Your task to perform on an android device: change the upload size in google photos Image 0: 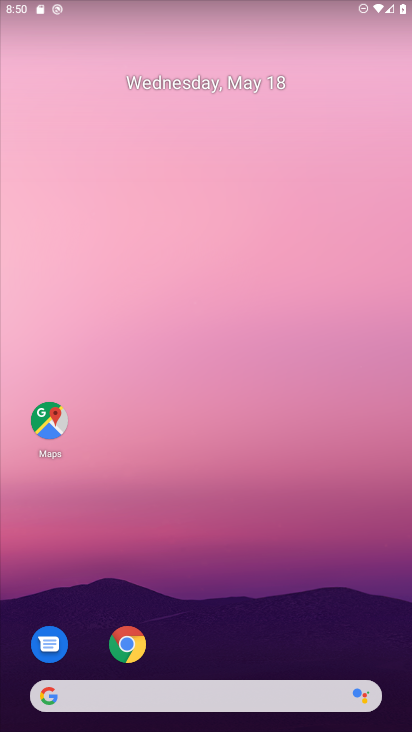
Step 0: drag from (187, 613) to (254, 25)
Your task to perform on an android device: change the upload size in google photos Image 1: 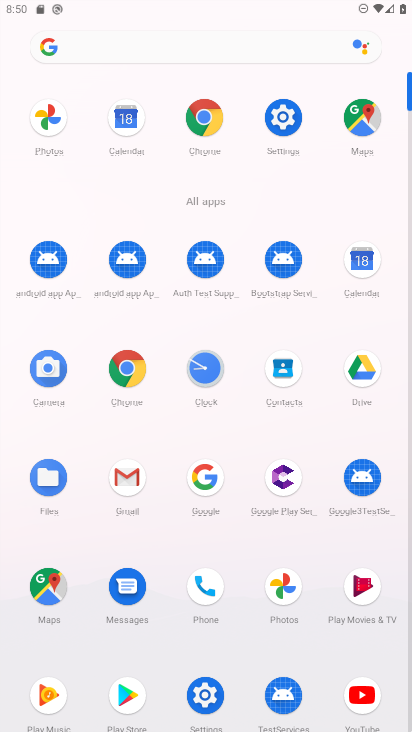
Step 1: click (49, 126)
Your task to perform on an android device: change the upload size in google photos Image 2: 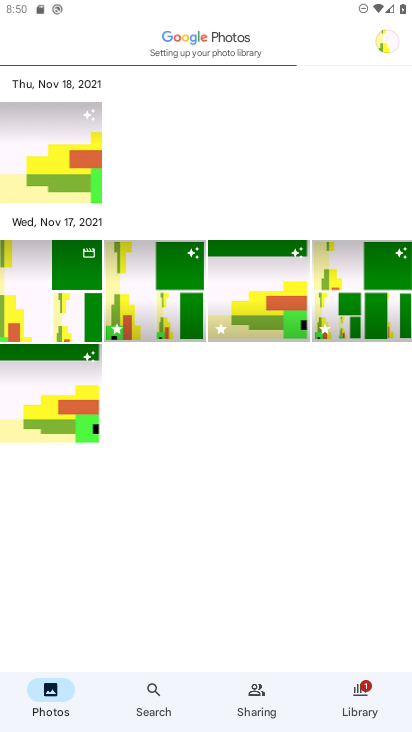
Step 2: click (387, 34)
Your task to perform on an android device: change the upload size in google photos Image 3: 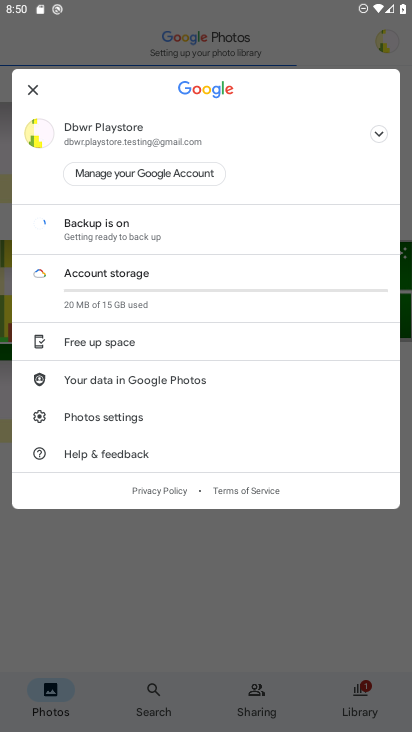
Step 3: click (82, 418)
Your task to perform on an android device: change the upload size in google photos Image 4: 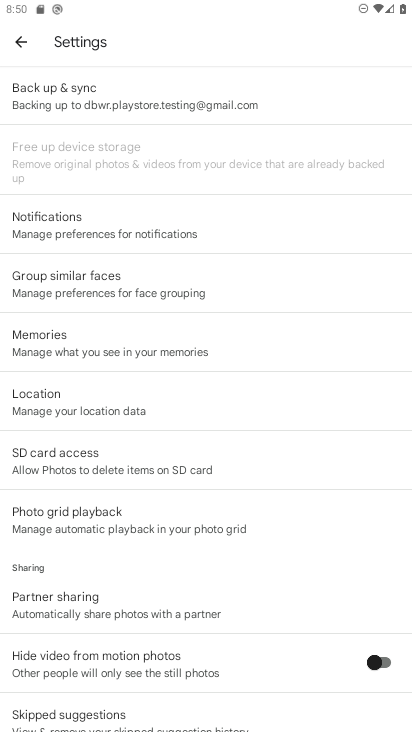
Step 4: click (110, 95)
Your task to perform on an android device: change the upload size in google photos Image 5: 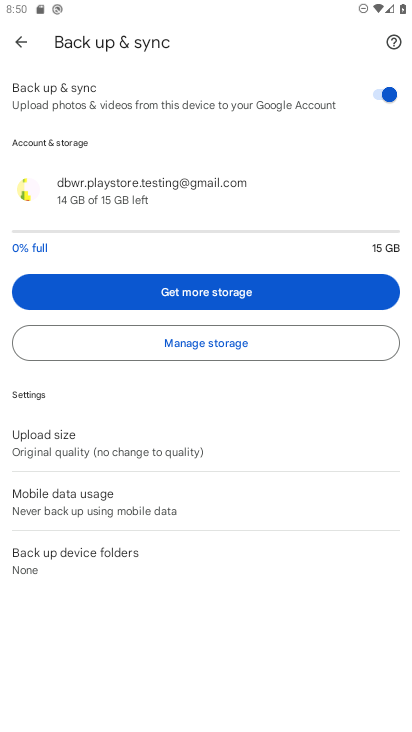
Step 5: click (49, 440)
Your task to perform on an android device: change the upload size in google photos Image 6: 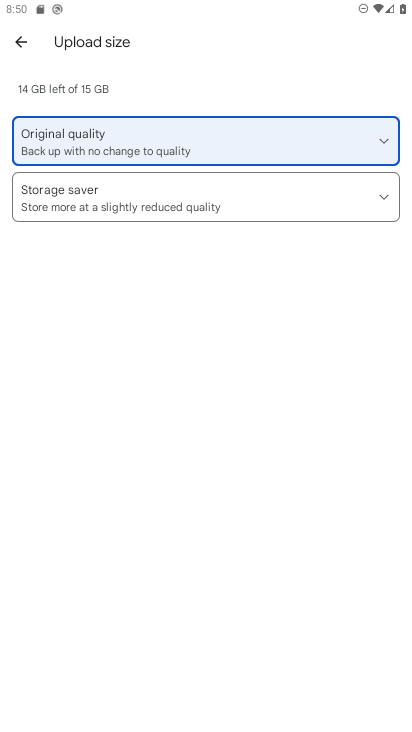
Step 6: click (92, 203)
Your task to perform on an android device: change the upload size in google photos Image 7: 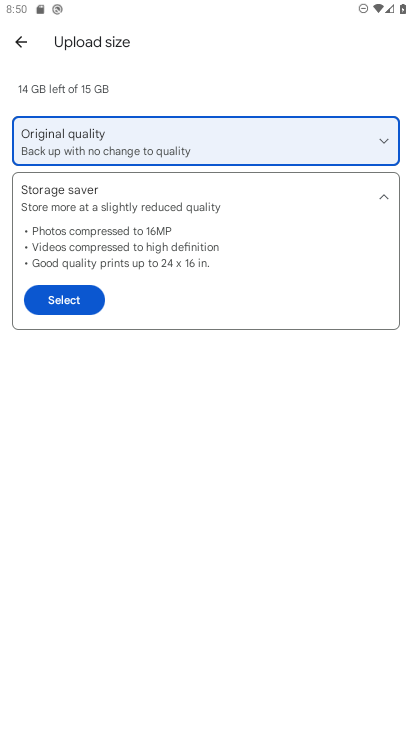
Step 7: click (97, 293)
Your task to perform on an android device: change the upload size in google photos Image 8: 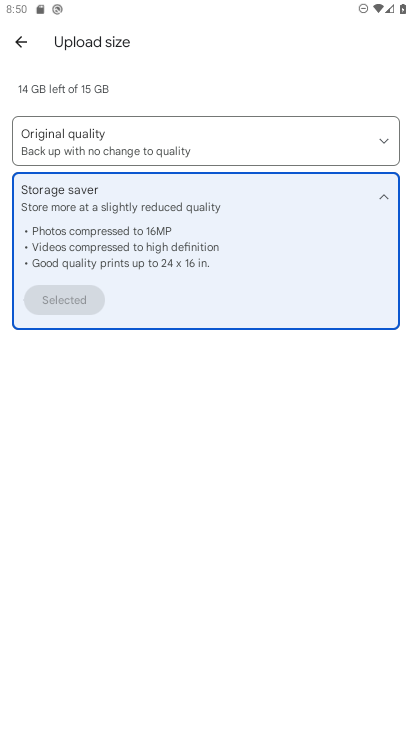
Step 8: task complete